Your task to perform on an android device: turn on wifi Image 0: 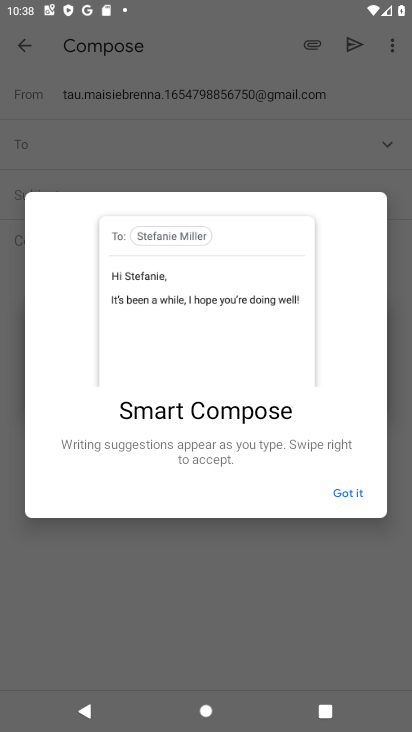
Step 0: press home button
Your task to perform on an android device: turn on wifi Image 1: 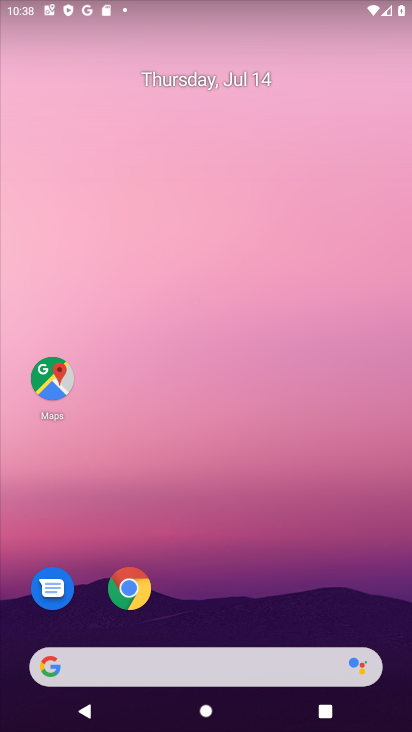
Step 1: drag from (138, 663) to (310, 31)
Your task to perform on an android device: turn on wifi Image 2: 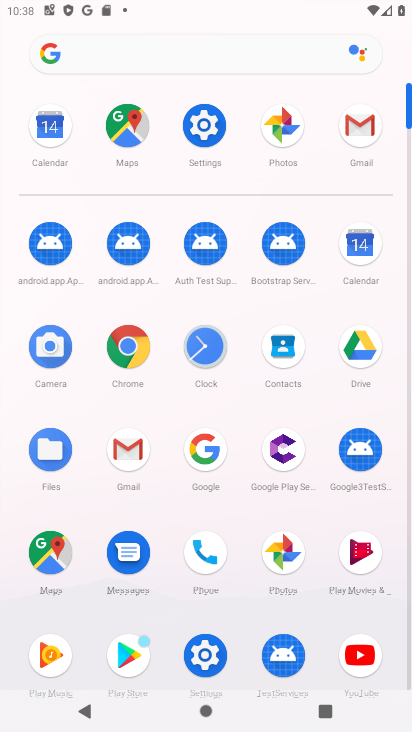
Step 2: click (207, 111)
Your task to perform on an android device: turn on wifi Image 3: 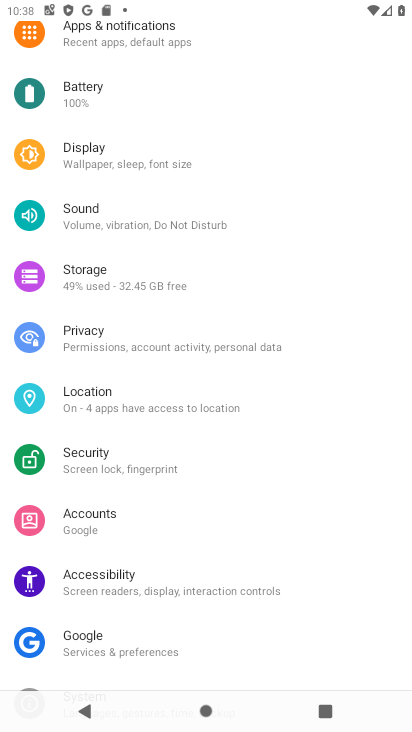
Step 3: drag from (277, 67) to (211, 463)
Your task to perform on an android device: turn on wifi Image 4: 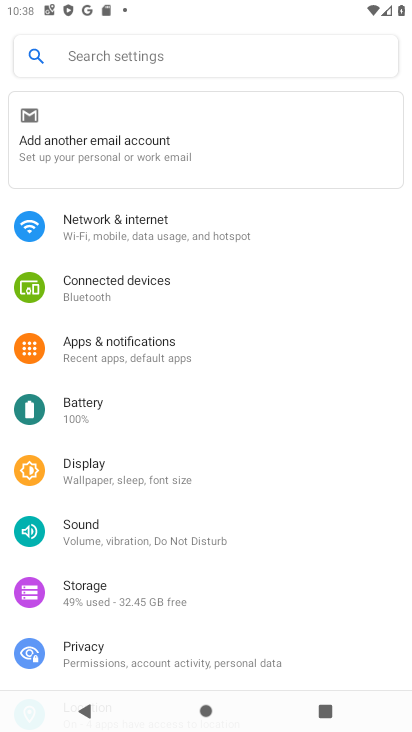
Step 4: click (178, 216)
Your task to perform on an android device: turn on wifi Image 5: 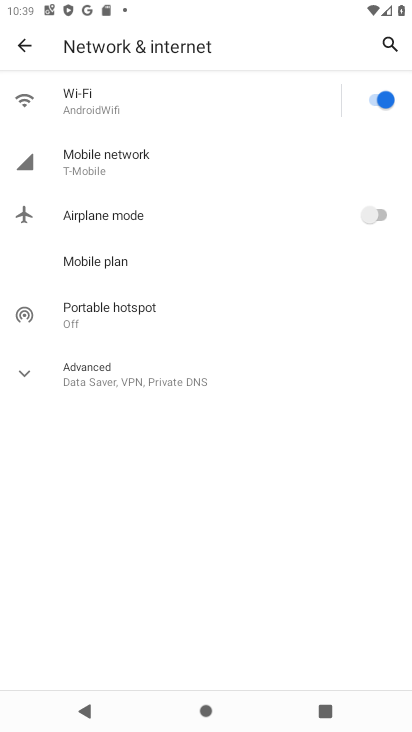
Step 5: task complete